Your task to perform on an android device: turn on data saver in the chrome app Image 0: 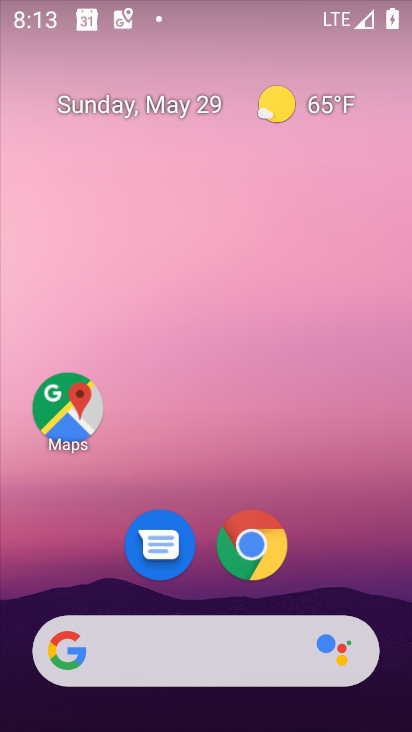
Step 0: click (252, 547)
Your task to perform on an android device: turn on data saver in the chrome app Image 1: 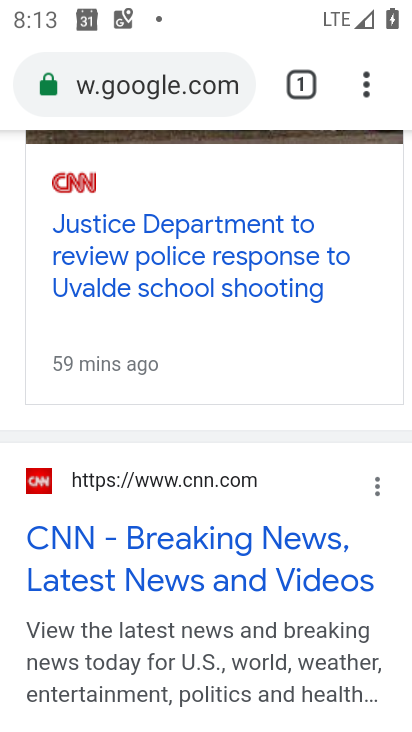
Step 1: click (364, 86)
Your task to perform on an android device: turn on data saver in the chrome app Image 2: 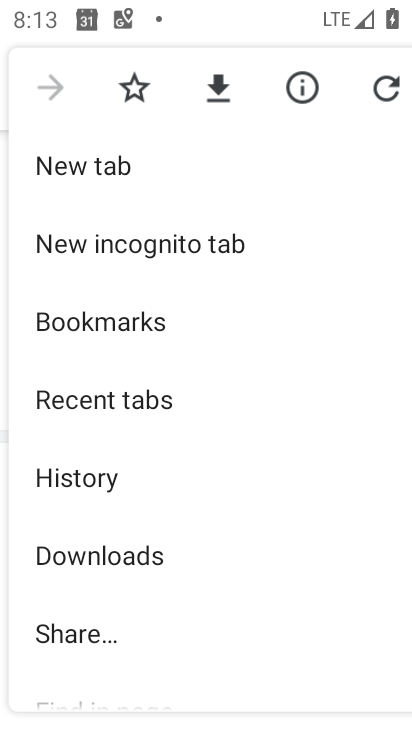
Step 2: drag from (120, 589) to (219, 181)
Your task to perform on an android device: turn on data saver in the chrome app Image 3: 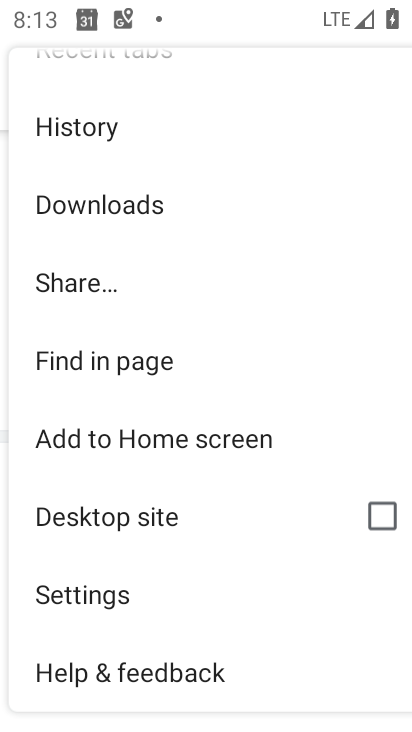
Step 3: click (98, 597)
Your task to perform on an android device: turn on data saver in the chrome app Image 4: 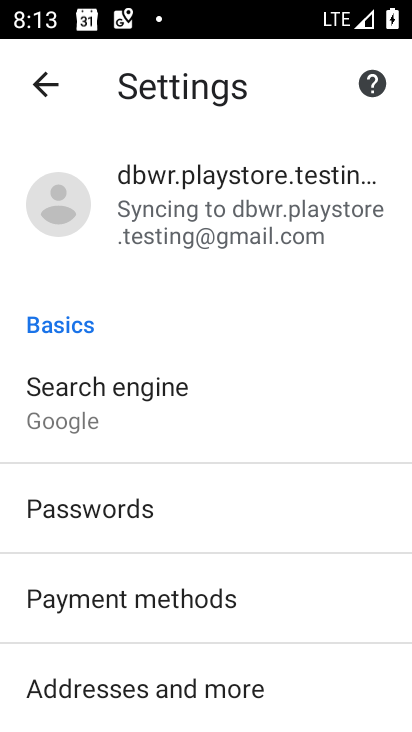
Step 4: drag from (117, 449) to (91, 265)
Your task to perform on an android device: turn on data saver in the chrome app Image 5: 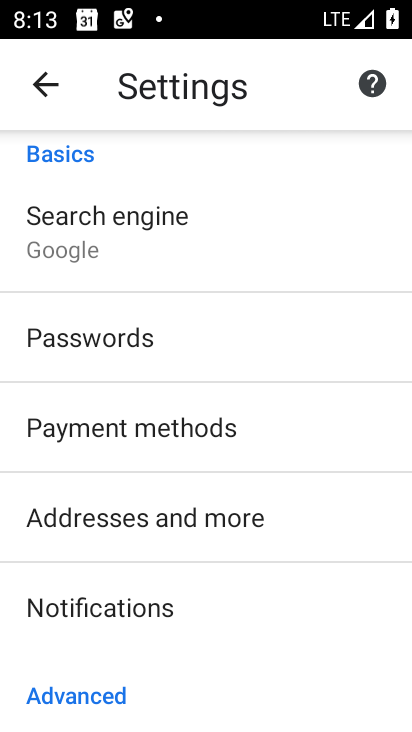
Step 5: drag from (119, 650) to (192, 294)
Your task to perform on an android device: turn on data saver in the chrome app Image 6: 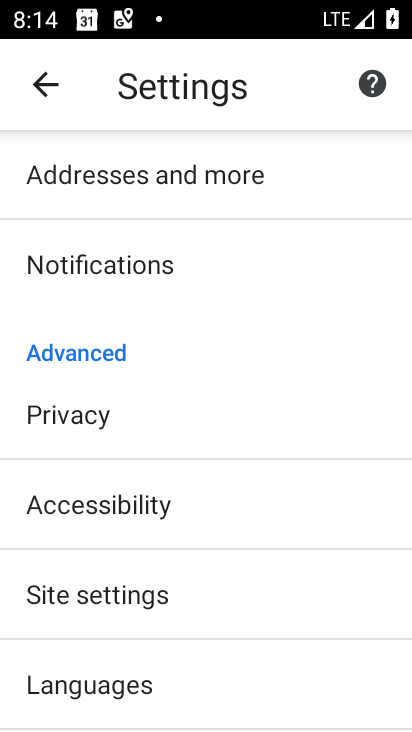
Step 6: drag from (89, 620) to (120, 356)
Your task to perform on an android device: turn on data saver in the chrome app Image 7: 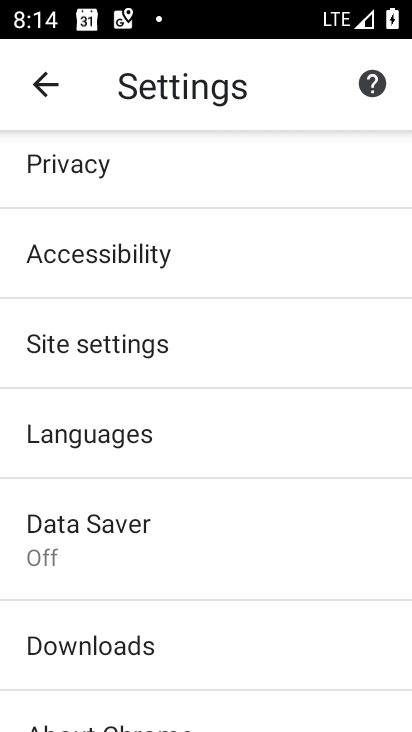
Step 7: click (112, 549)
Your task to perform on an android device: turn on data saver in the chrome app Image 8: 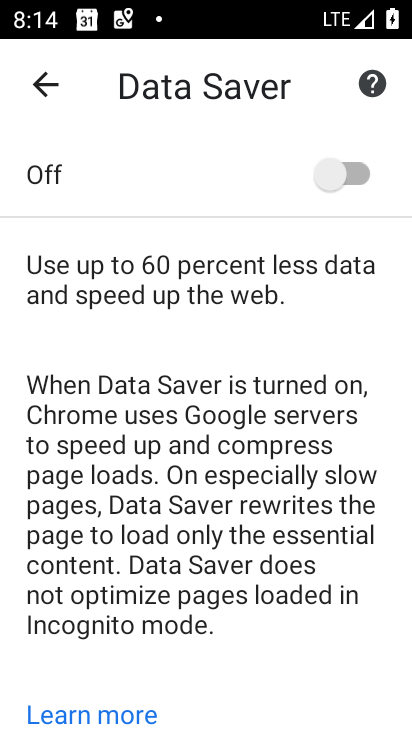
Step 8: click (320, 174)
Your task to perform on an android device: turn on data saver in the chrome app Image 9: 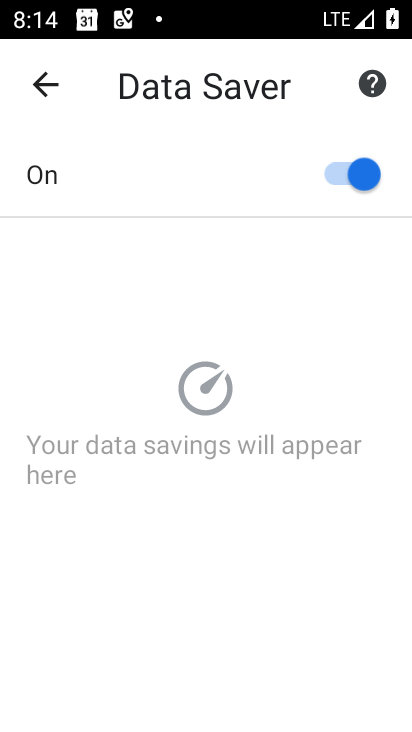
Step 9: task complete